Your task to perform on an android device: Add apple airpods pro to the cart on amazon.com, then select checkout. Image 0: 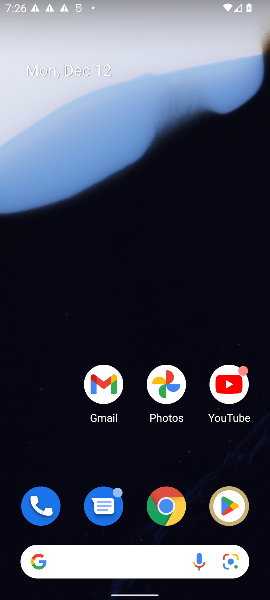
Step 0: click (121, 564)
Your task to perform on an android device: Add apple airpods pro to the cart on amazon.com, then select checkout. Image 1: 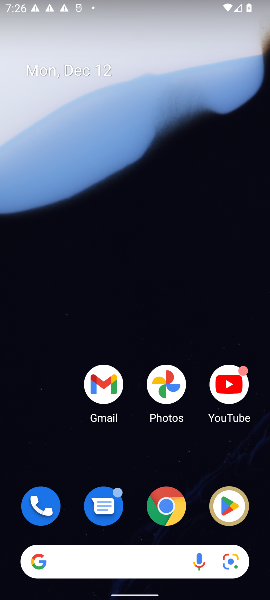
Step 1: click (121, 564)
Your task to perform on an android device: Add apple airpods pro to the cart on amazon.com, then select checkout. Image 2: 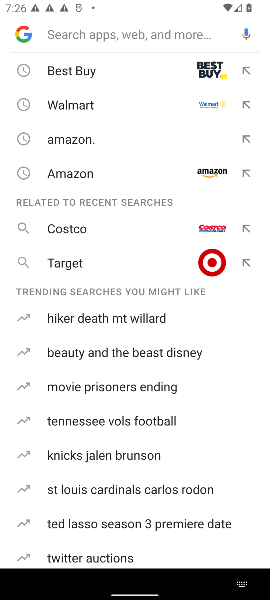
Step 2: click (104, 174)
Your task to perform on an android device: Add apple airpods pro to the cart on amazon.com, then select checkout. Image 3: 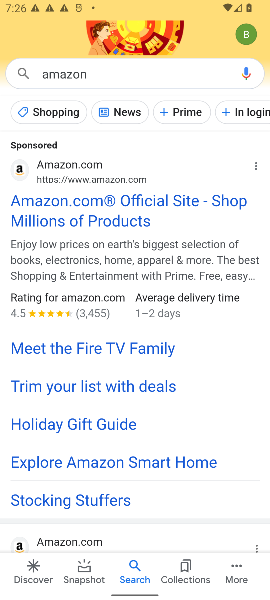
Step 3: click (101, 189)
Your task to perform on an android device: Add apple airpods pro to the cart on amazon.com, then select checkout. Image 4: 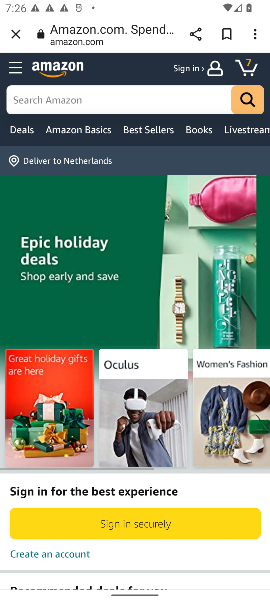
Step 4: click (123, 93)
Your task to perform on an android device: Add apple airpods pro to the cart on amazon.com, then select checkout. Image 5: 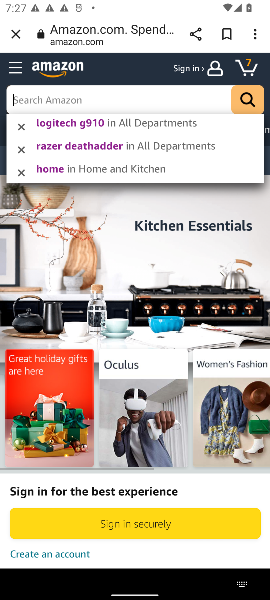
Step 5: type "apple airpod"
Your task to perform on an android device: Add apple airpods pro to the cart on amazon.com, then select checkout. Image 6: 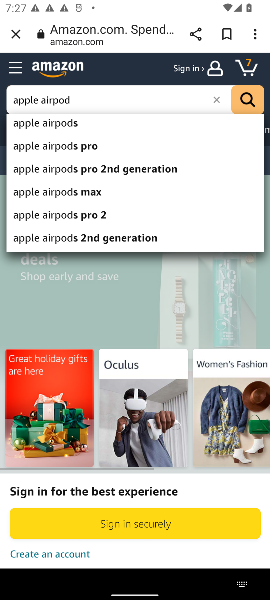
Step 6: click (242, 106)
Your task to perform on an android device: Add apple airpods pro to the cart on amazon.com, then select checkout. Image 7: 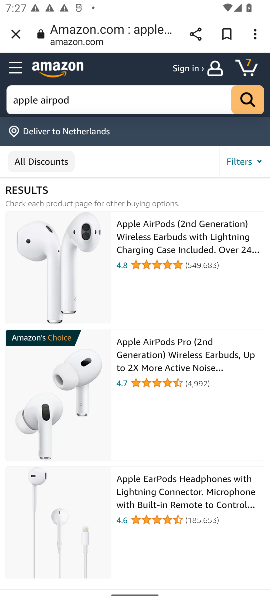
Step 7: click (121, 251)
Your task to perform on an android device: Add apple airpods pro to the cart on amazon.com, then select checkout. Image 8: 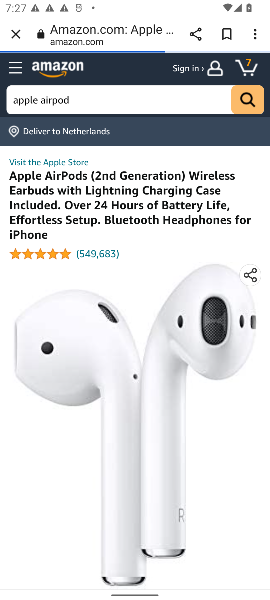
Step 8: drag from (97, 423) to (85, 140)
Your task to perform on an android device: Add apple airpods pro to the cart on amazon.com, then select checkout. Image 9: 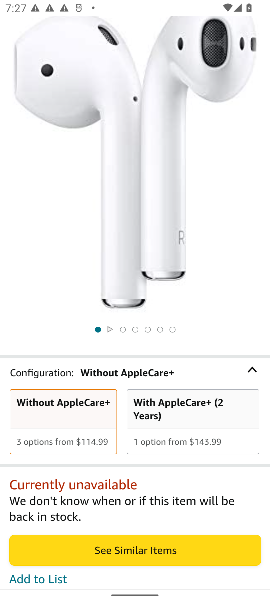
Step 9: drag from (125, 520) to (134, 249)
Your task to perform on an android device: Add apple airpods pro to the cart on amazon.com, then select checkout. Image 10: 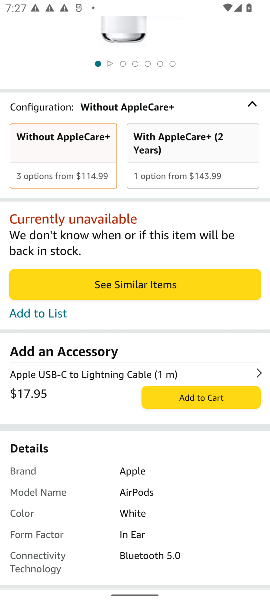
Step 10: click (213, 406)
Your task to perform on an android device: Add apple airpods pro to the cart on amazon.com, then select checkout. Image 11: 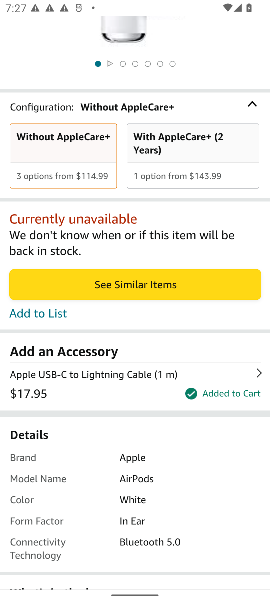
Step 11: task complete